Your task to perform on an android device: Search for "bose soundlink mini" on costco.com, select the first entry, and add it to the cart. Image 0: 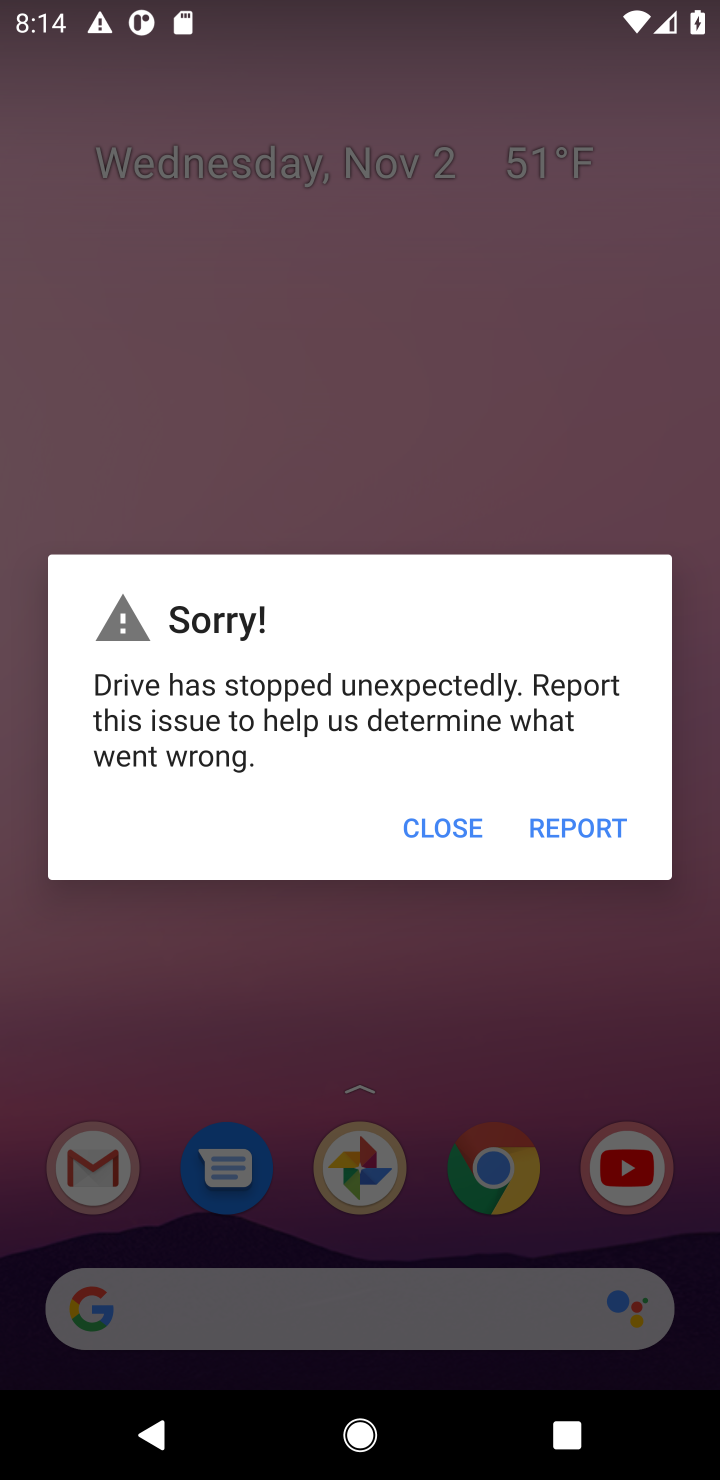
Step 0: click (419, 937)
Your task to perform on an android device: Search for "bose soundlink mini" on costco.com, select the first entry, and add it to the cart. Image 1: 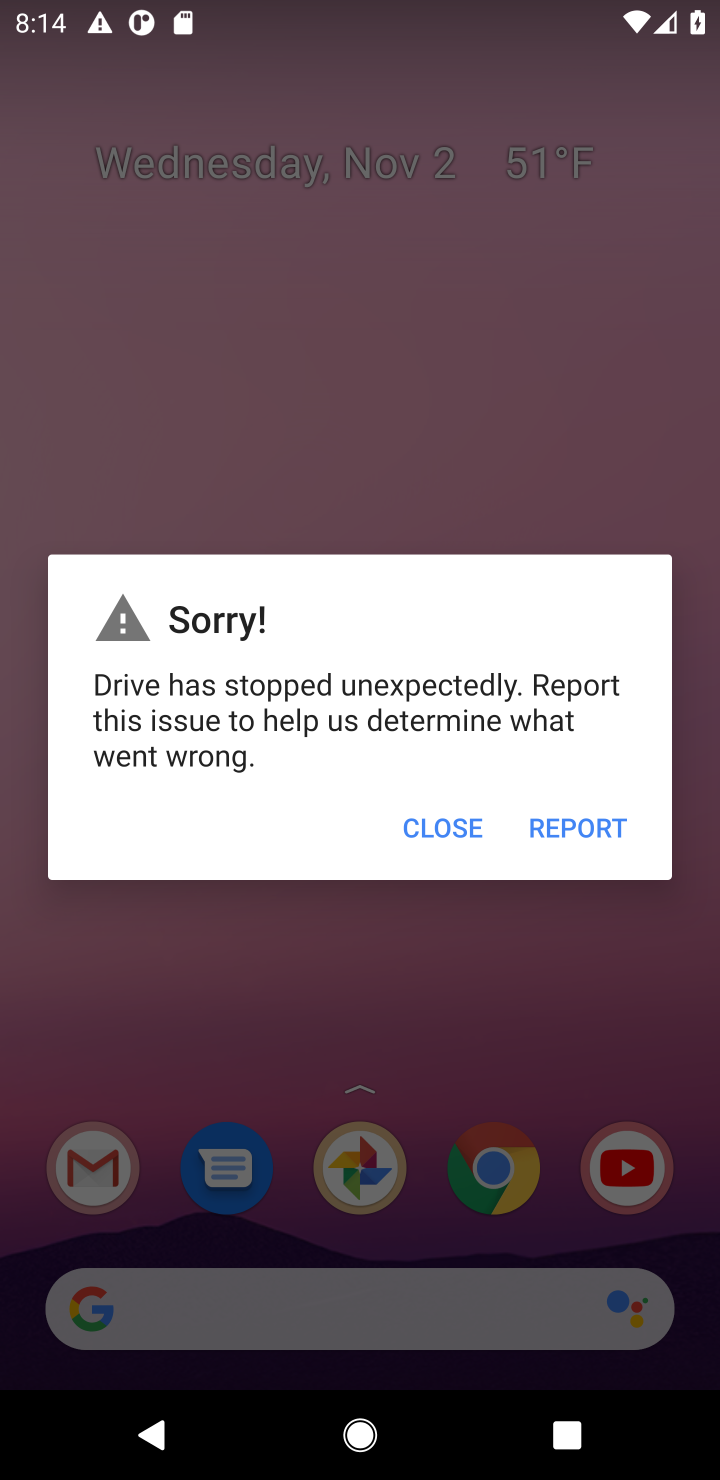
Step 1: click (462, 816)
Your task to perform on an android device: Search for "bose soundlink mini" on costco.com, select the first entry, and add it to the cart. Image 2: 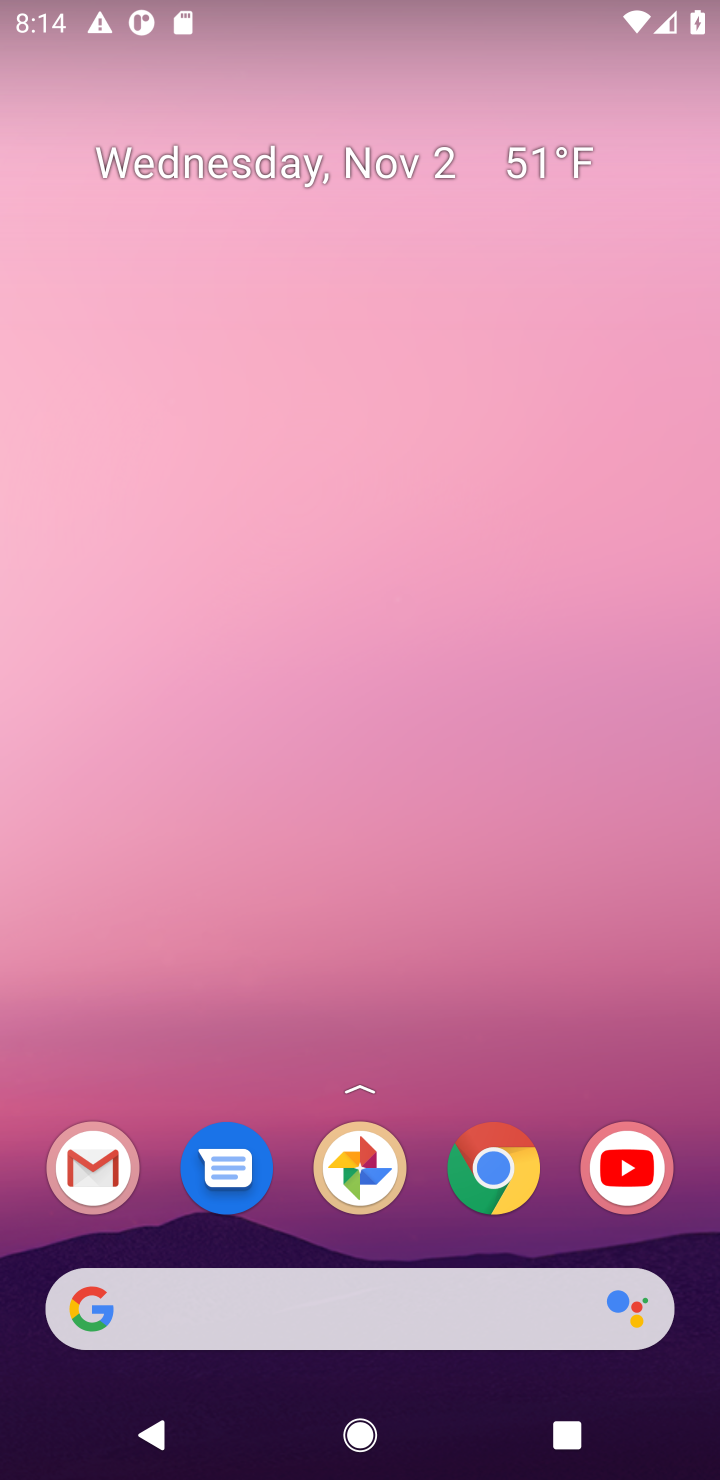
Step 2: click (306, 1300)
Your task to perform on an android device: Search for "bose soundlink mini" on costco.com, select the first entry, and add it to the cart. Image 3: 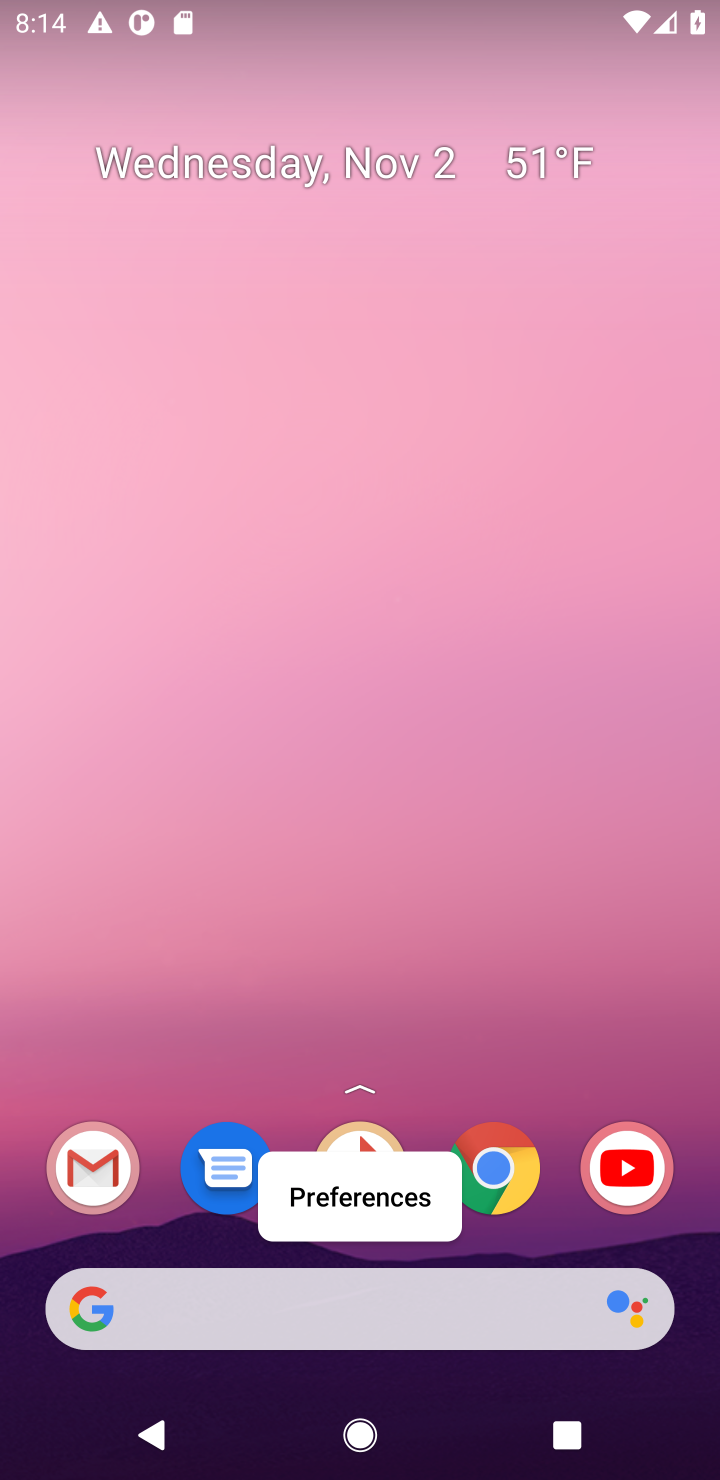
Step 3: click (515, 873)
Your task to perform on an android device: Search for "bose soundlink mini" on costco.com, select the first entry, and add it to the cart. Image 4: 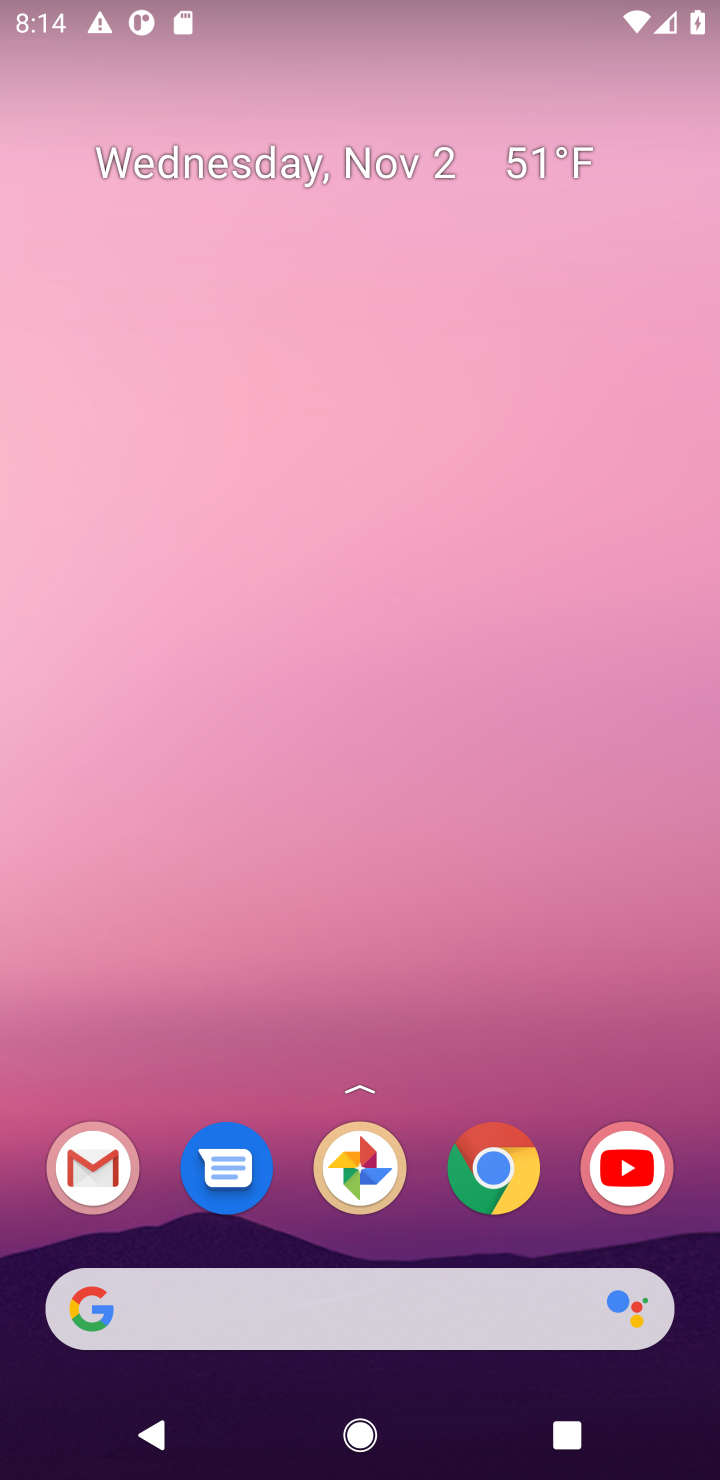
Step 4: click (509, 1160)
Your task to perform on an android device: Search for "bose soundlink mini" on costco.com, select the first entry, and add it to the cart. Image 5: 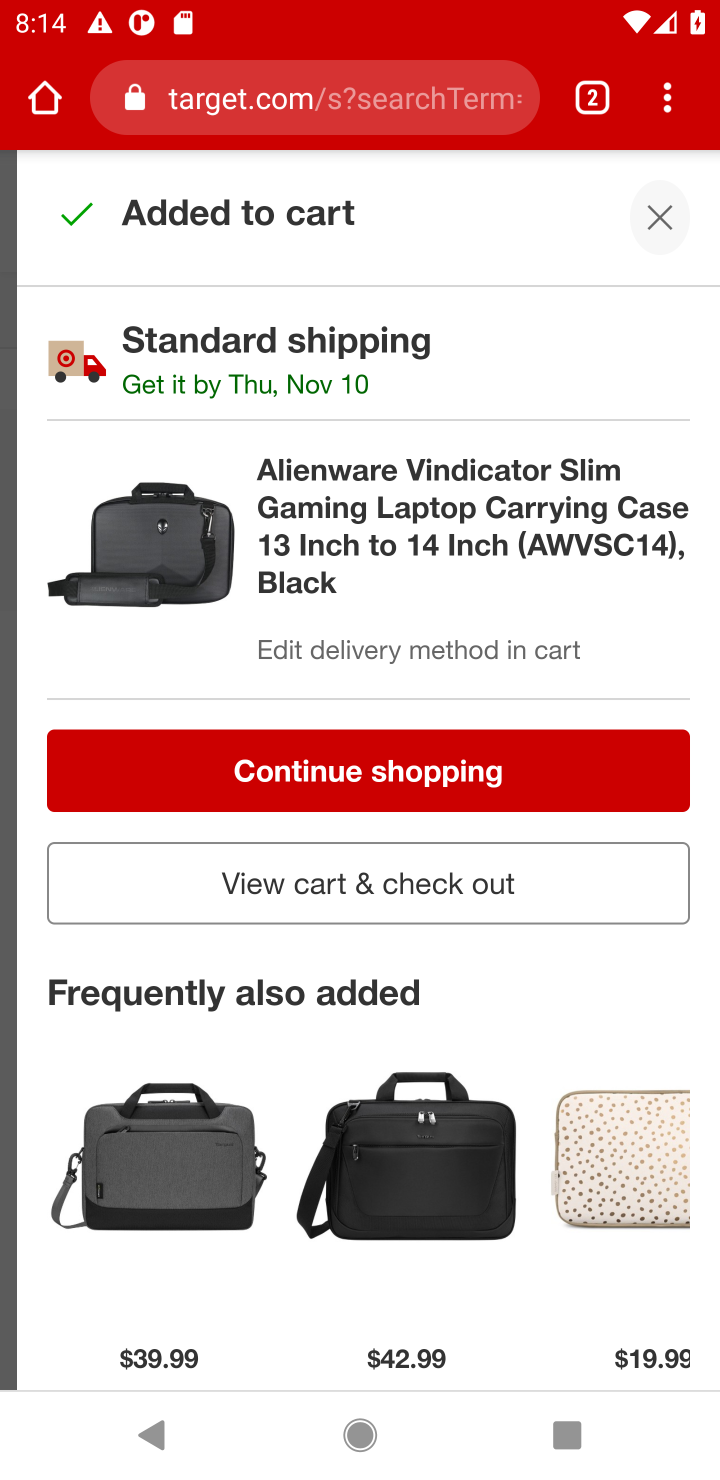
Step 5: click (338, 85)
Your task to perform on an android device: Search for "bose soundlink mini" on costco.com, select the first entry, and add it to the cart. Image 6: 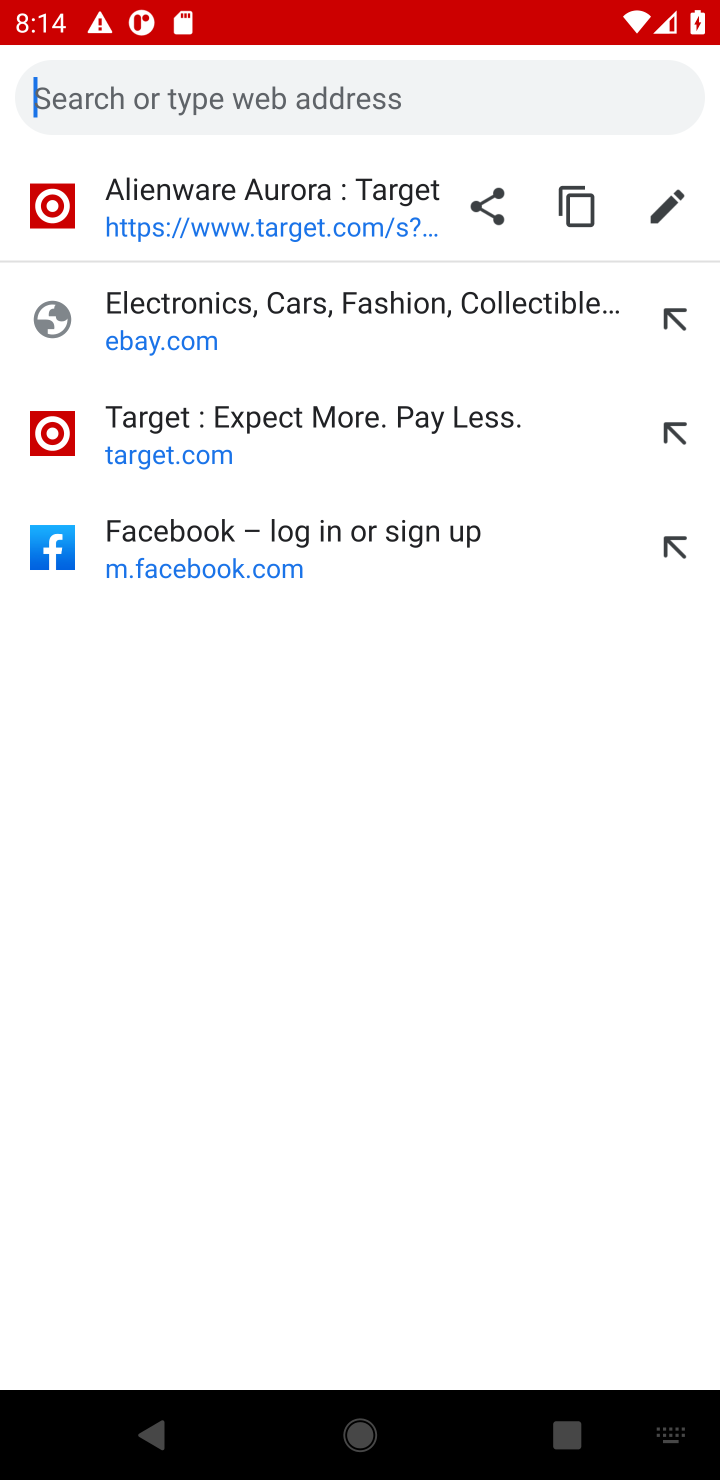
Step 6: type "costco.com"
Your task to perform on an android device: Search for "bose soundlink mini" on costco.com, select the first entry, and add it to the cart. Image 7: 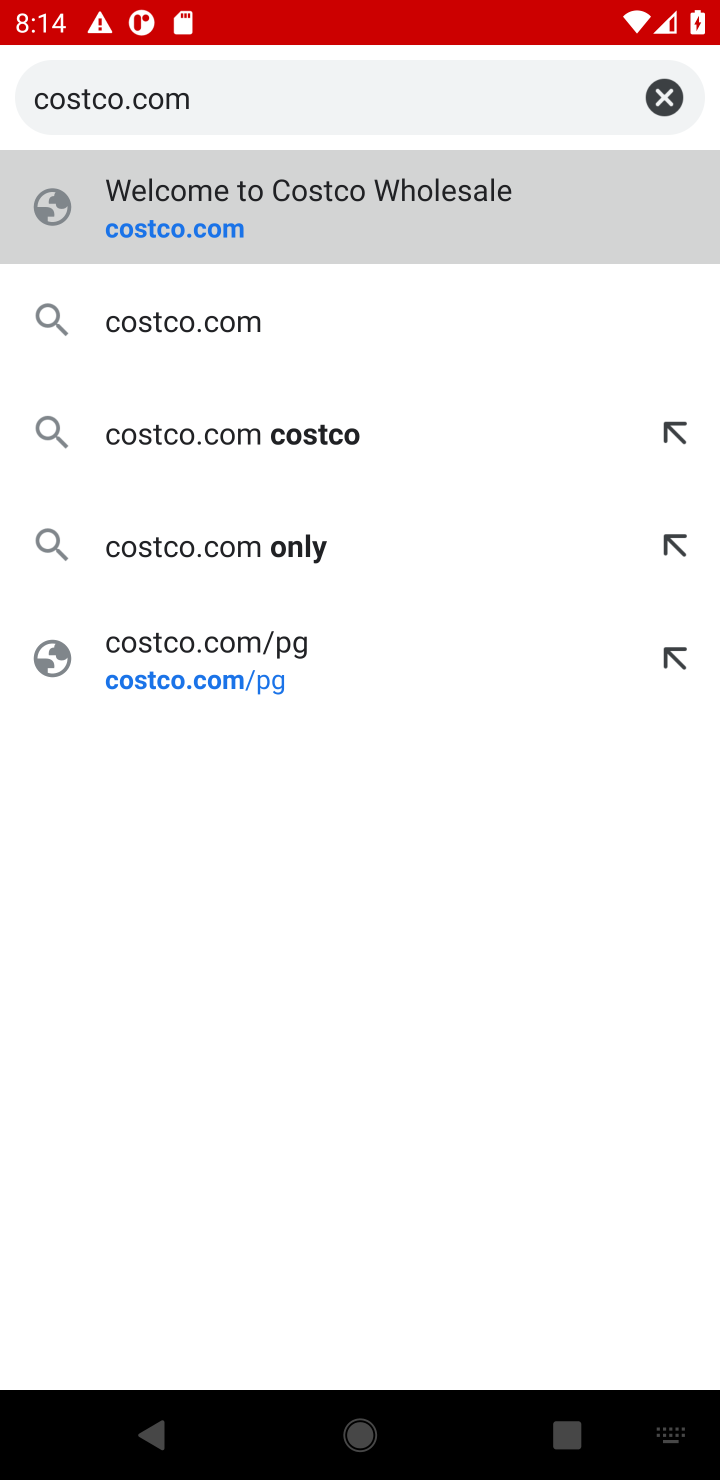
Step 7: press enter
Your task to perform on an android device: Search for "bose soundlink mini" on costco.com, select the first entry, and add it to the cart. Image 8: 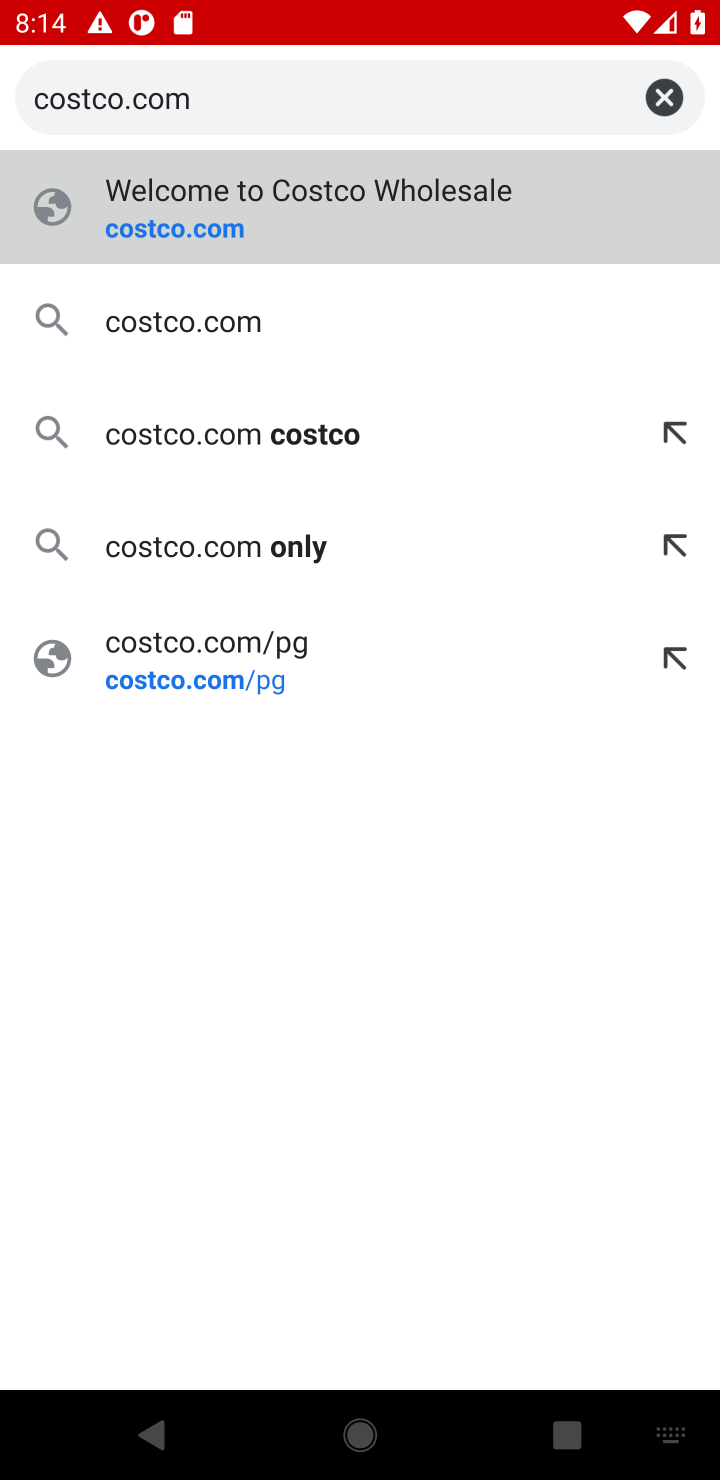
Step 8: type ""
Your task to perform on an android device: Search for "bose soundlink mini" on costco.com, select the first entry, and add it to the cart. Image 9: 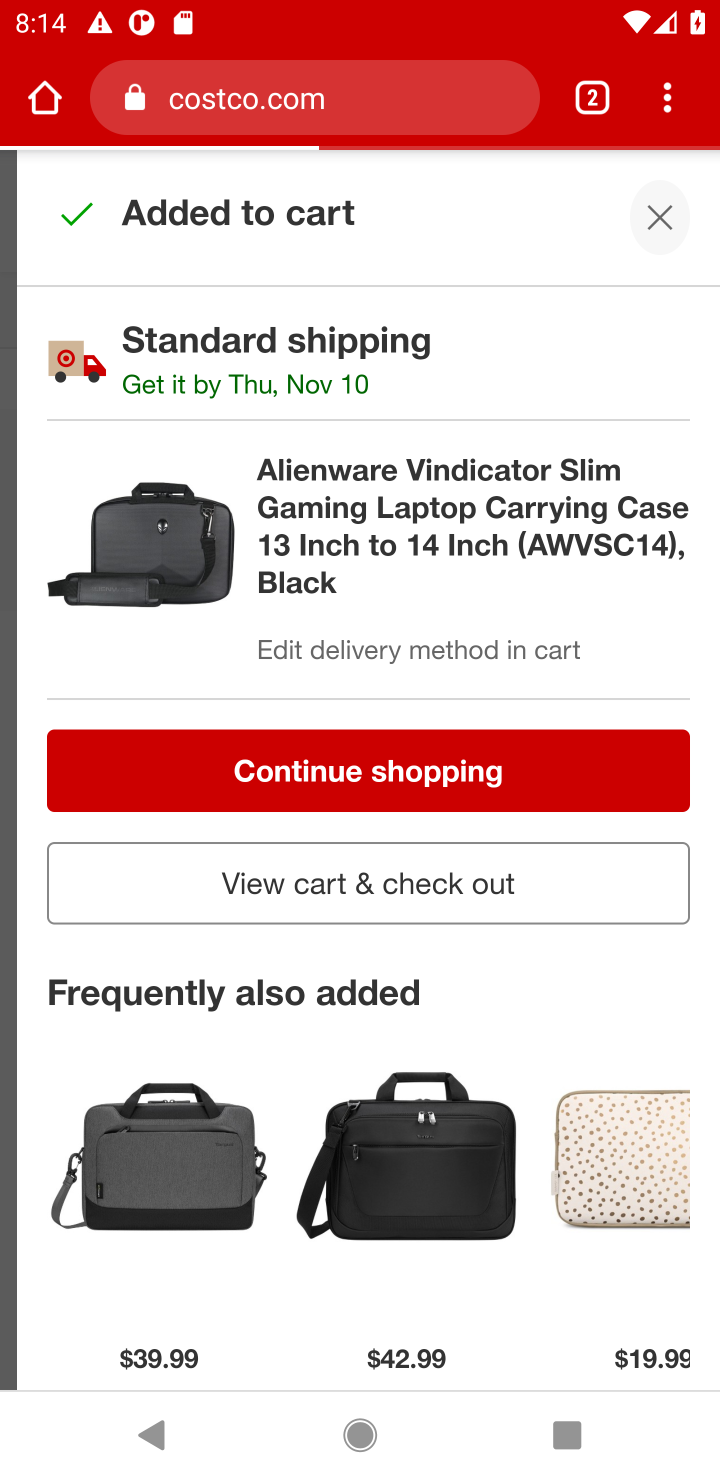
Step 9: click (264, 224)
Your task to perform on an android device: Search for "bose soundlink mini" on costco.com, select the first entry, and add it to the cart. Image 10: 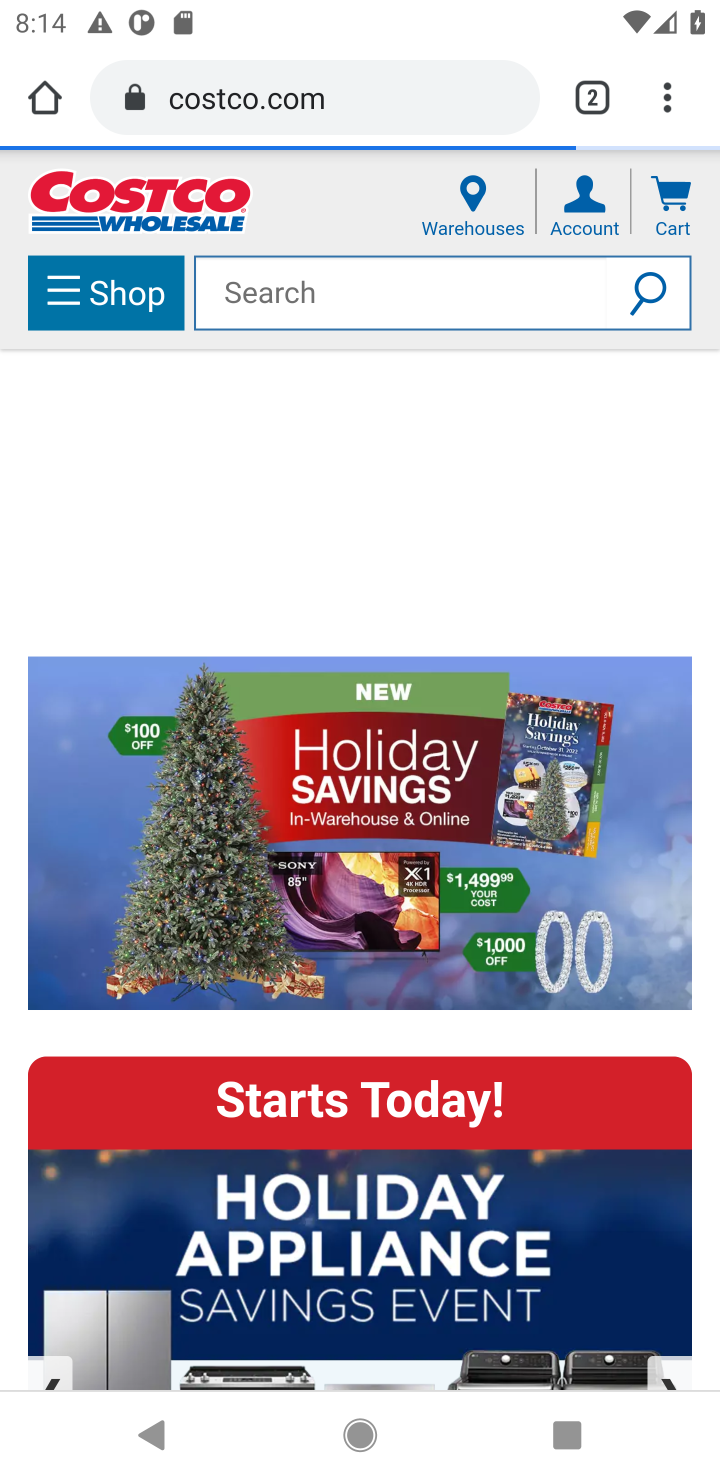
Step 10: click (319, 270)
Your task to perform on an android device: Search for "bose soundlink mini" on costco.com, select the first entry, and add it to the cart. Image 11: 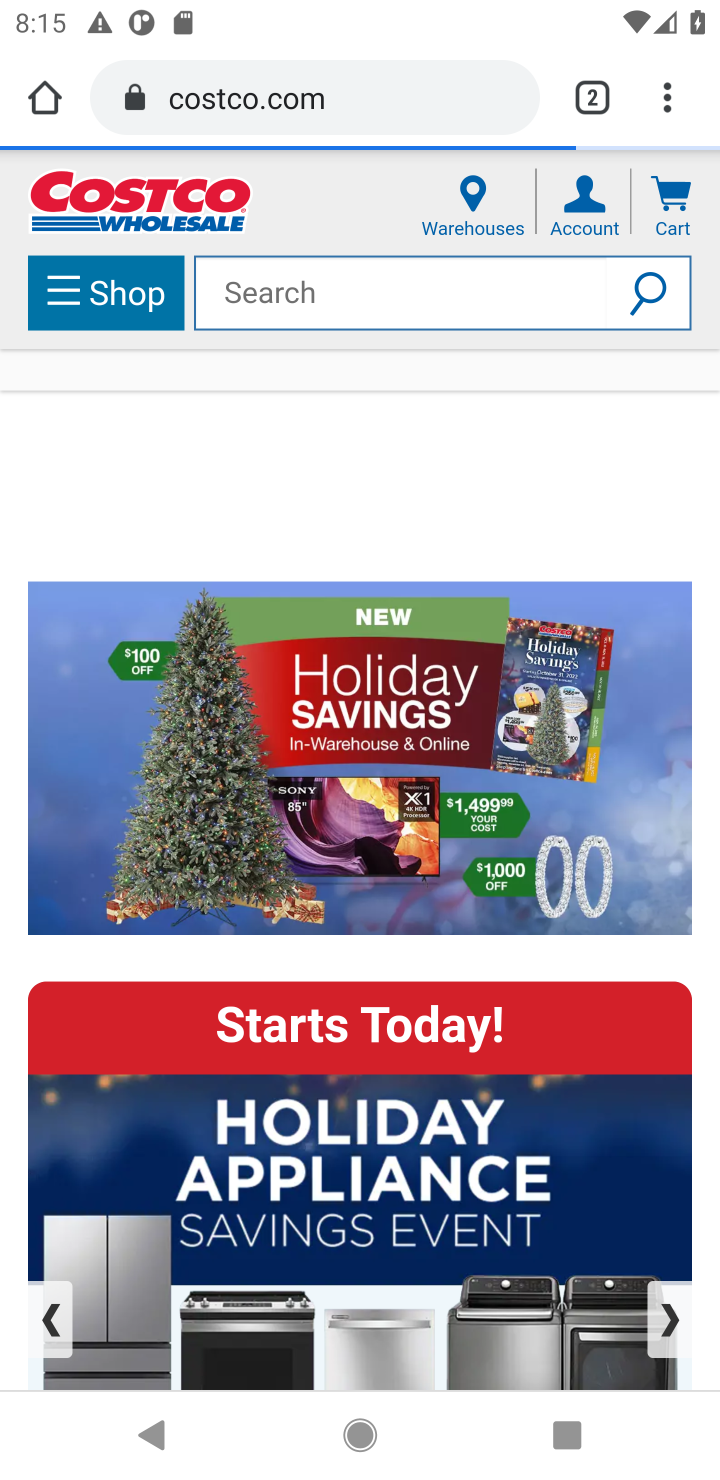
Step 11: type "bose soundlink mini"
Your task to perform on an android device: Search for "bose soundlink mini" on costco.com, select the first entry, and add it to the cart. Image 12: 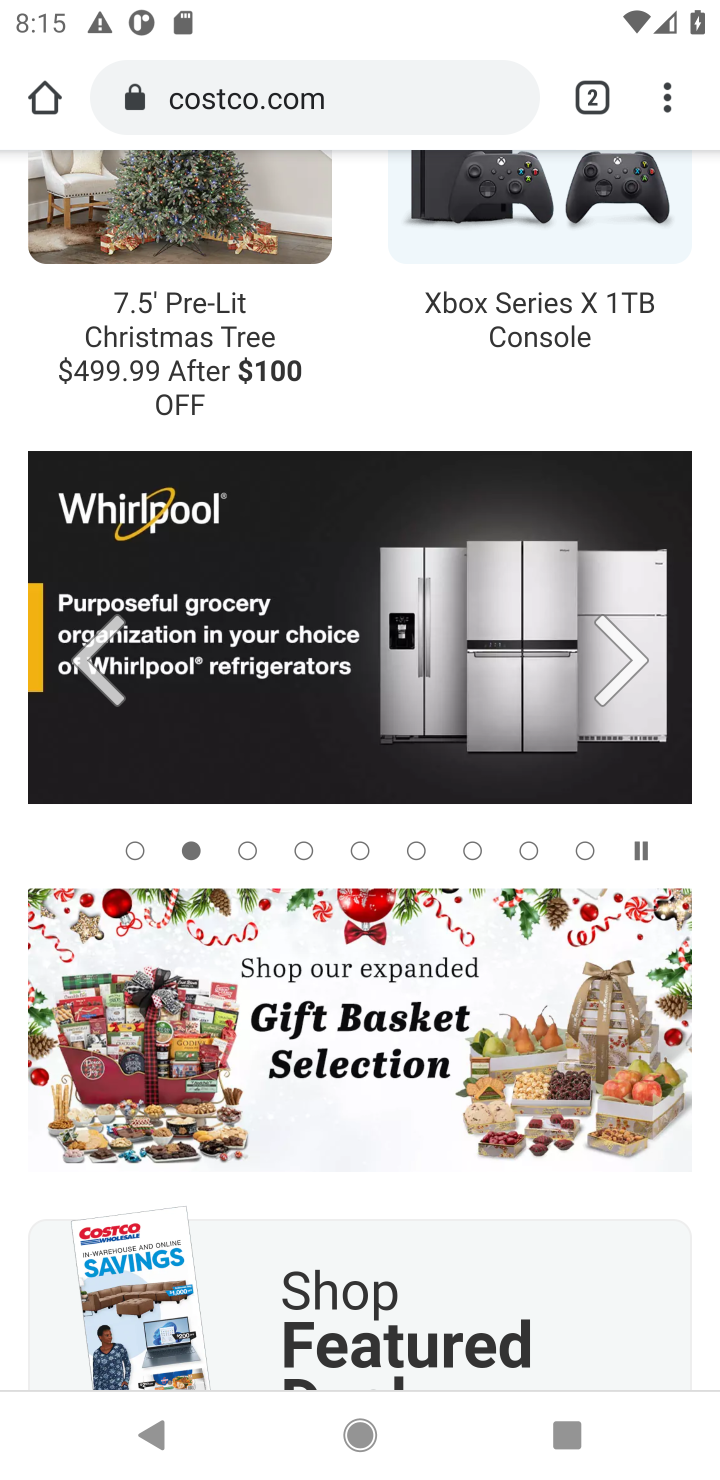
Step 12: drag from (360, 300) to (389, 1397)
Your task to perform on an android device: Search for "bose soundlink mini" on costco.com, select the first entry, and add it to the cart. Image 13: 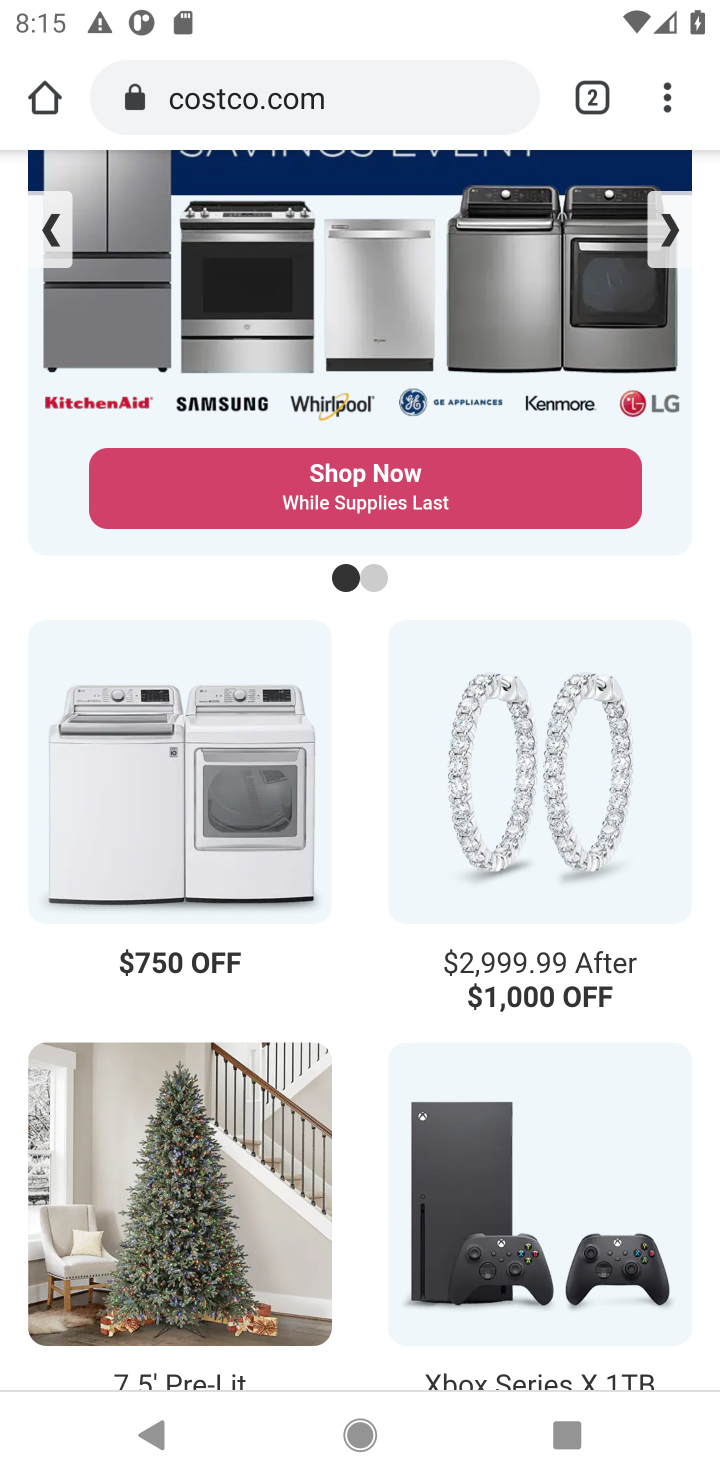
Step 13: drag from (248, 581) to (367, 1298)
Your task to perform on an android device: Search for "bose soundlink mini" on costco.com, select the first entry, and add it to the cart. Image 14: 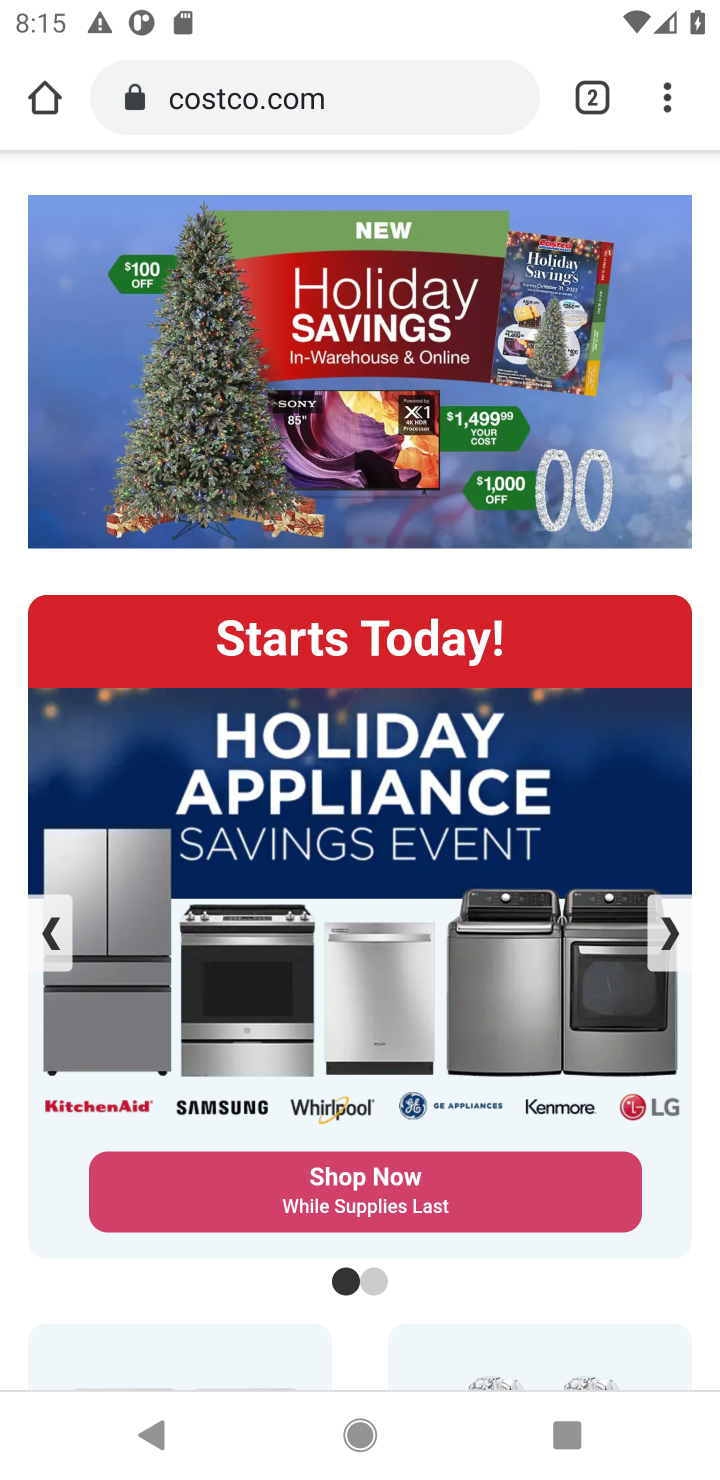
Step 14: drag from (297, 168) to (411, 1275)
Your task to perform on an android device: Search for "bose soundlink mini" on costco.com, select the first entry, and add it to the cart. Image 15: 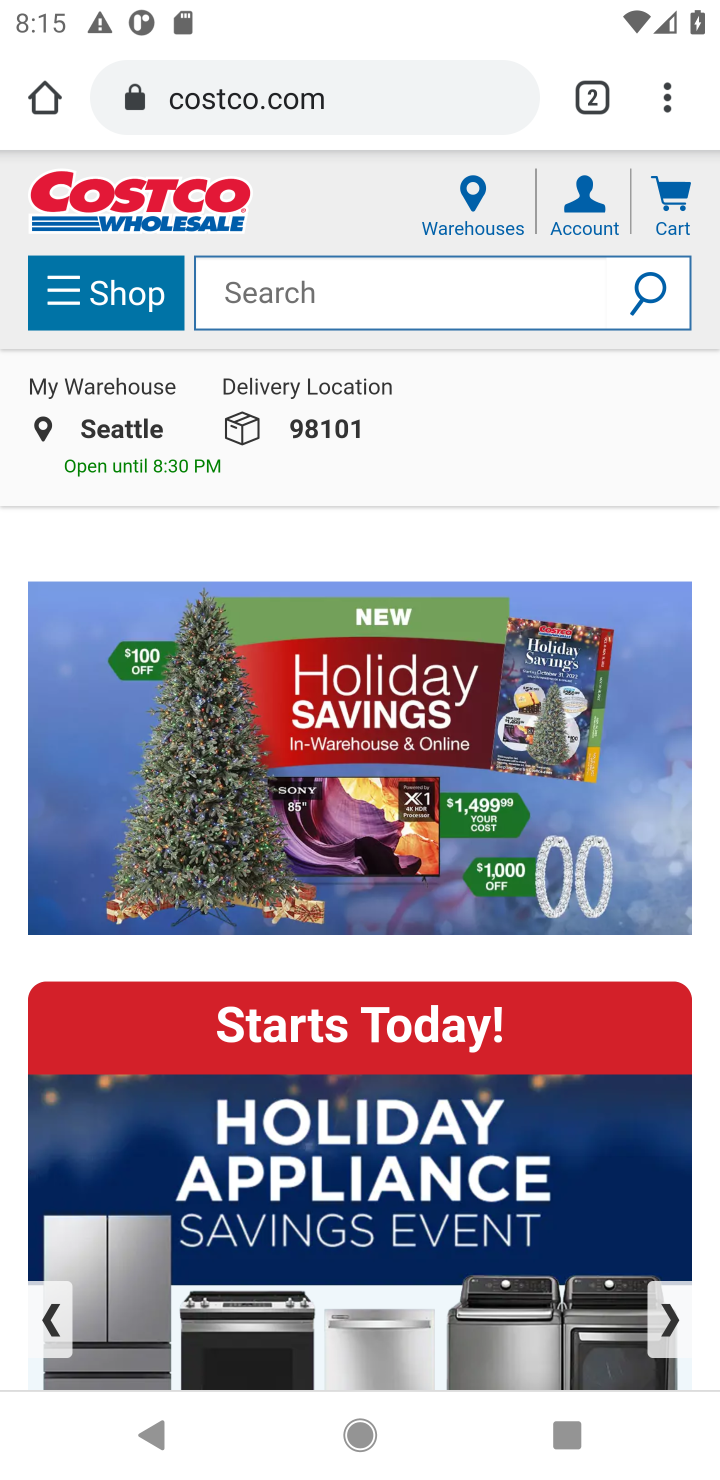
Step 15: click (280, 286)
Your task to perform on an android device: Search for "bose soundlink mini" on costco.com, select the first entry, and add it to the cart. Image 16: 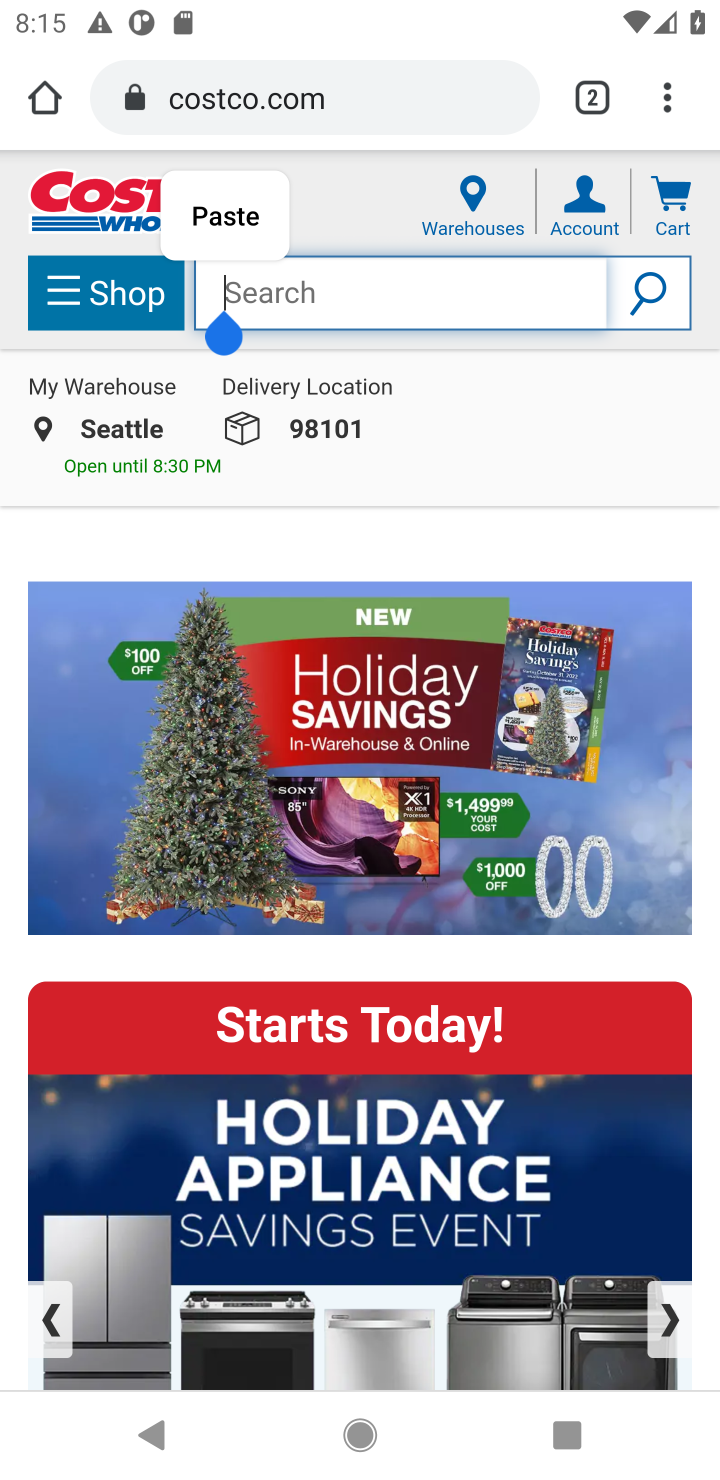
Step 16: type "bose soundlink mini"
Your task to perform on an android device: Search for "bose soundlink mini" on costco.com, select the first entry, and add it to the cart. Image 17: 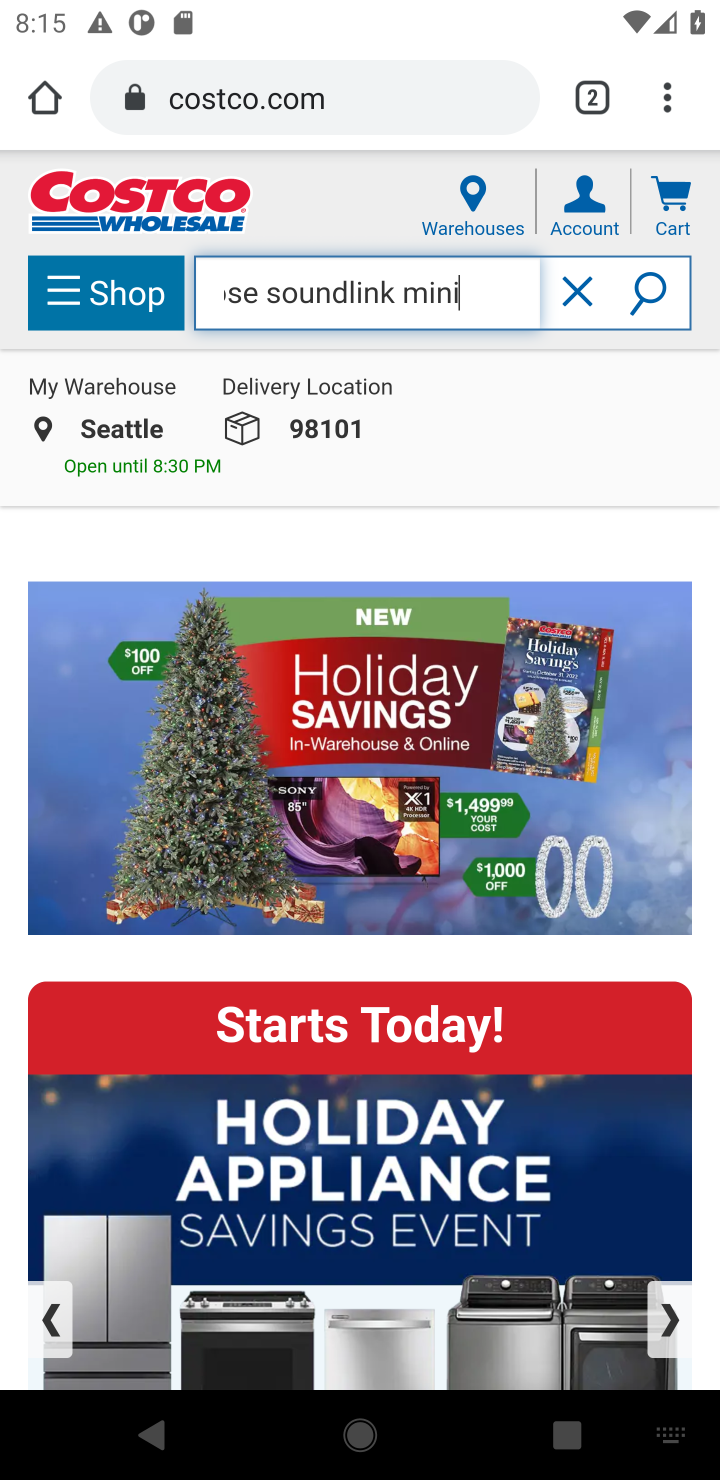
Step 17: type ""
Your task to perform on an android device: Search for "bose soundlink mini" on costco.com, select the first entry, and add it to the cart. Image 18: 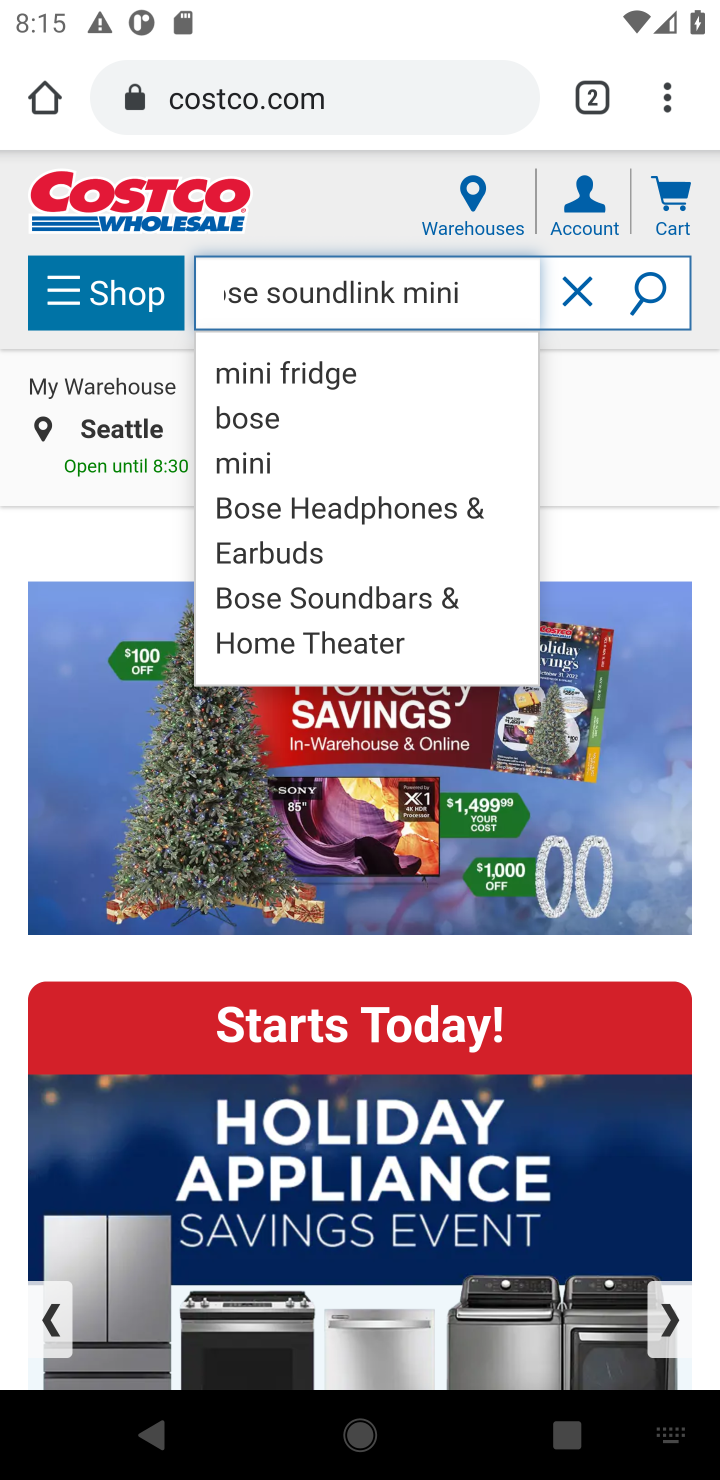
Step 18: press enter
Your task to perform on an android device: Search for "bose soundlink mini" on costco.com, select the first entry, and add it to the cart. Image 19: 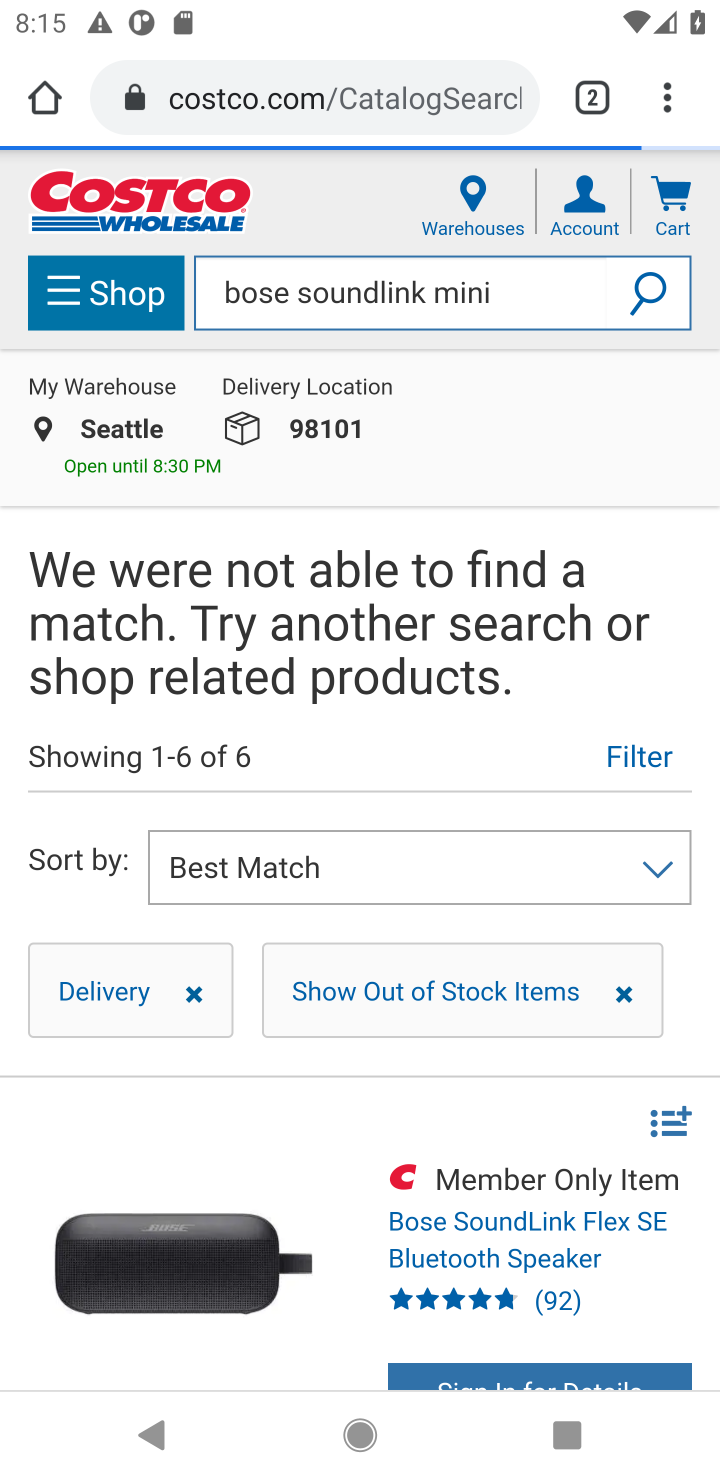
Step 19: drag from (562, 1311) to (489, 921)
Your task to perform on an android device: Search for "bose soundlink mini" on costco.com, select the first entry, and add it to the cart. Image 20: 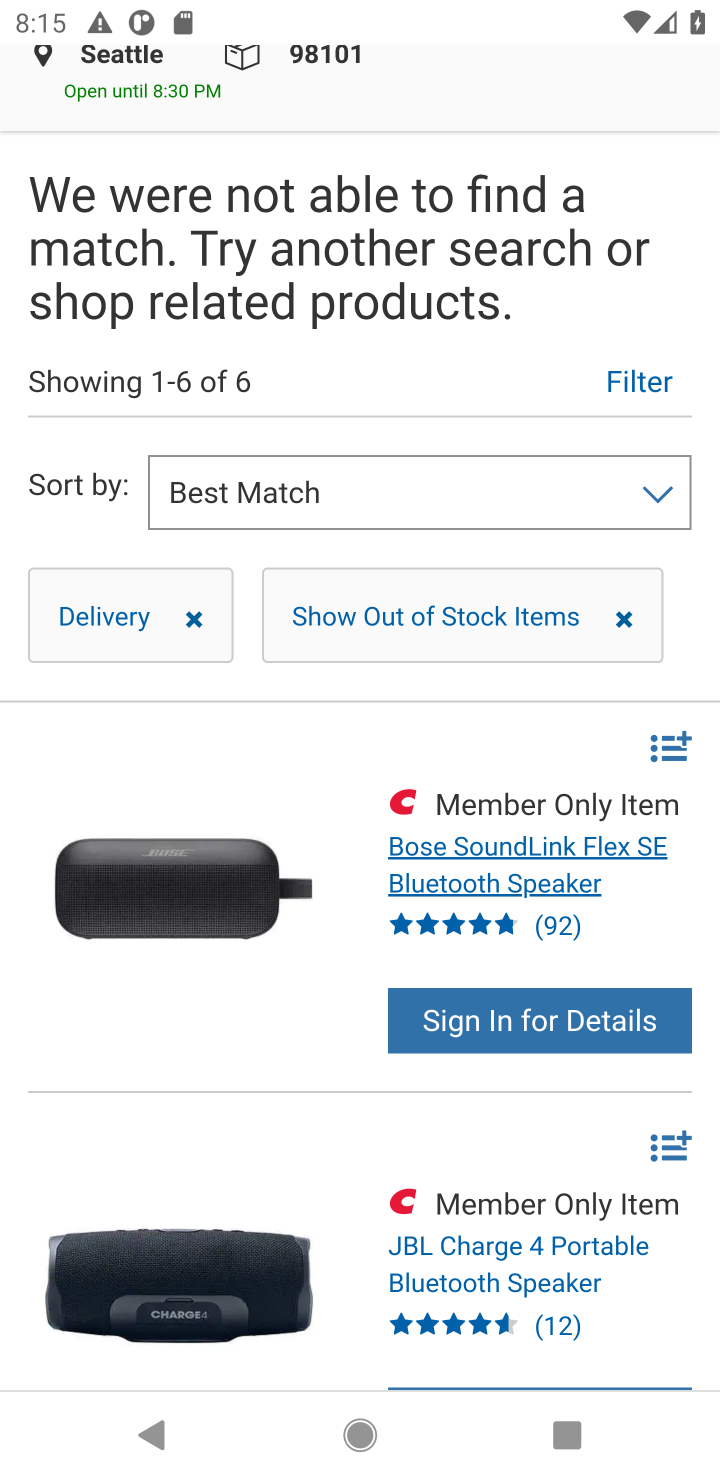
Step 20: click (499, 1013)
Your task to perform on an android device: Search for "bose soundlink mini" on costco.com, select the first entry, and add it to the cart. Image 21: 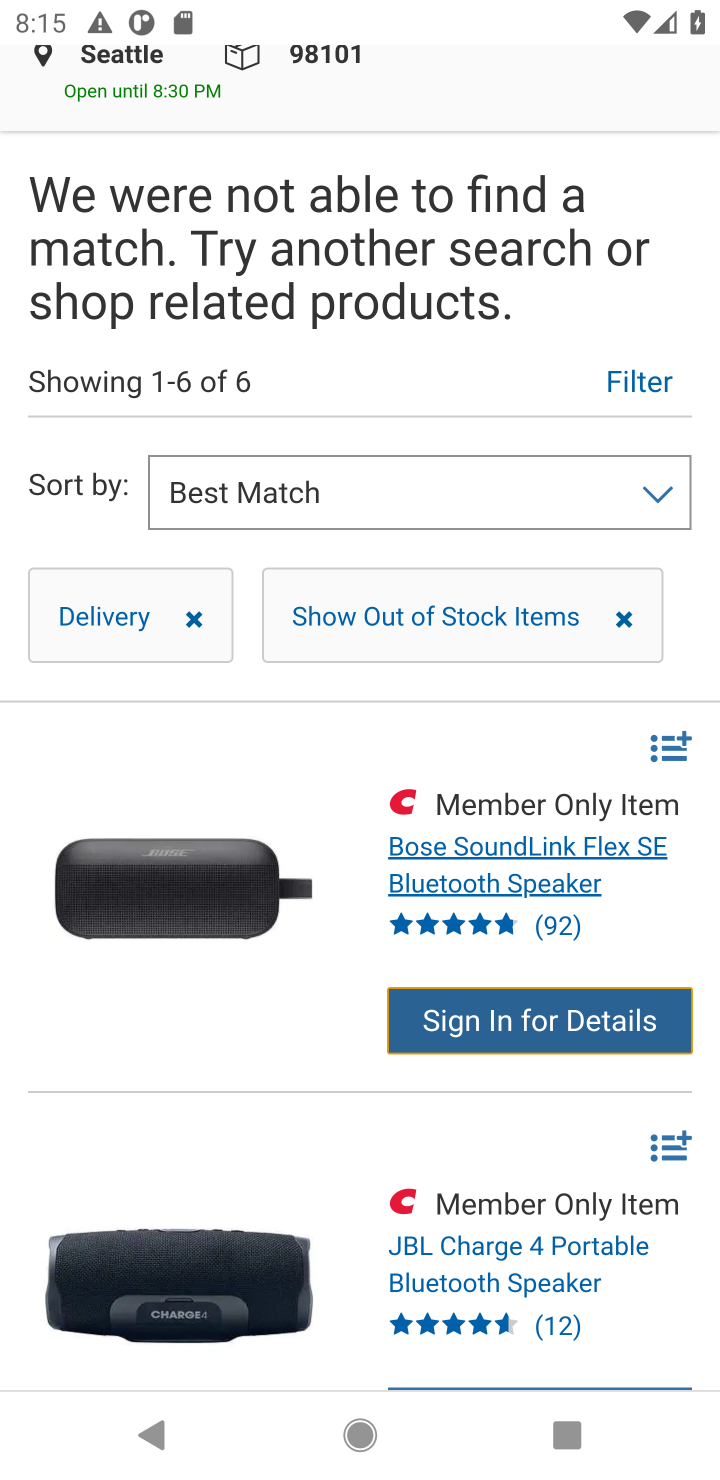
Step 21: click (499, 1013)
Your task to perform on an android device: Search for "bose soundlink mini" on costco.com, select the first entry, and add it to the cart. Image 22: 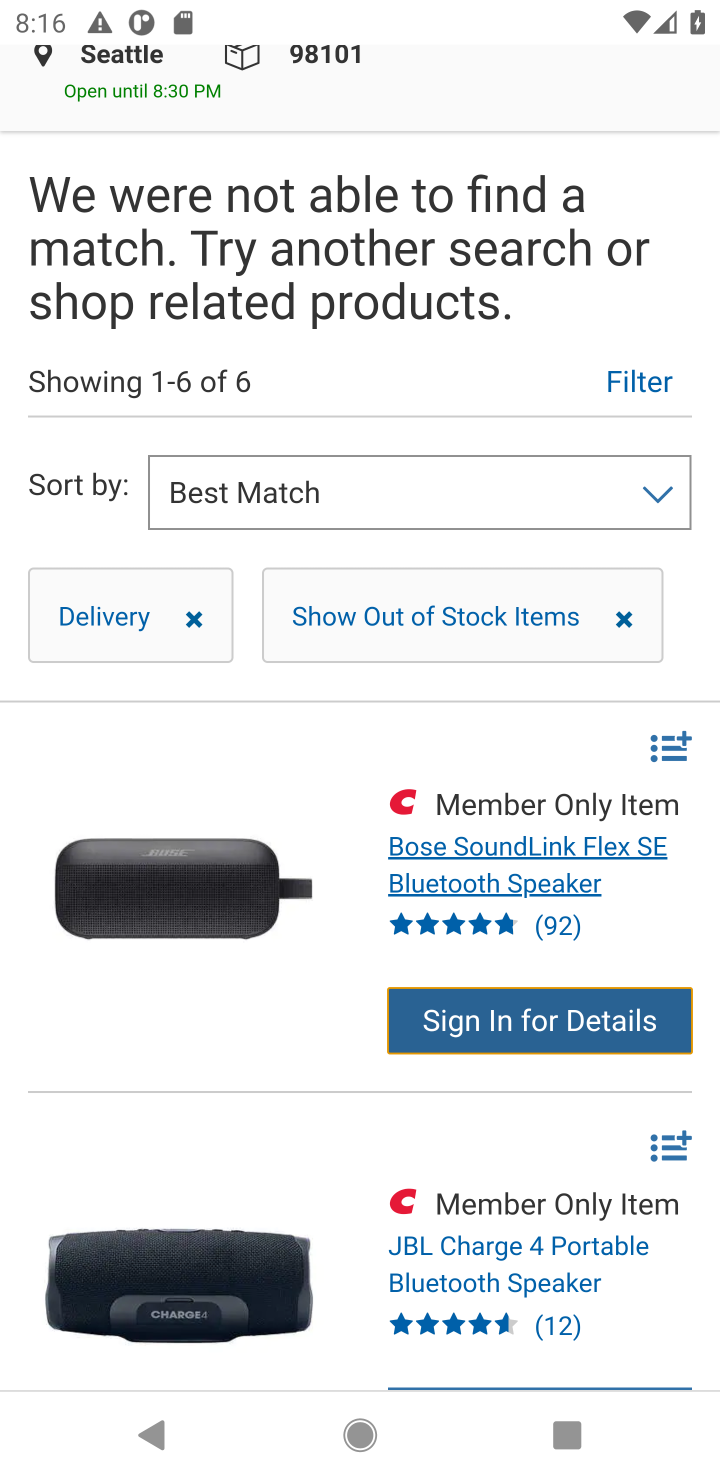
Step 22: click (529, 1033)
Your task to perform on an android device: Search for "bose soundlink mini" on costco.com, select the first entry, and add it to the cart. Image 23: 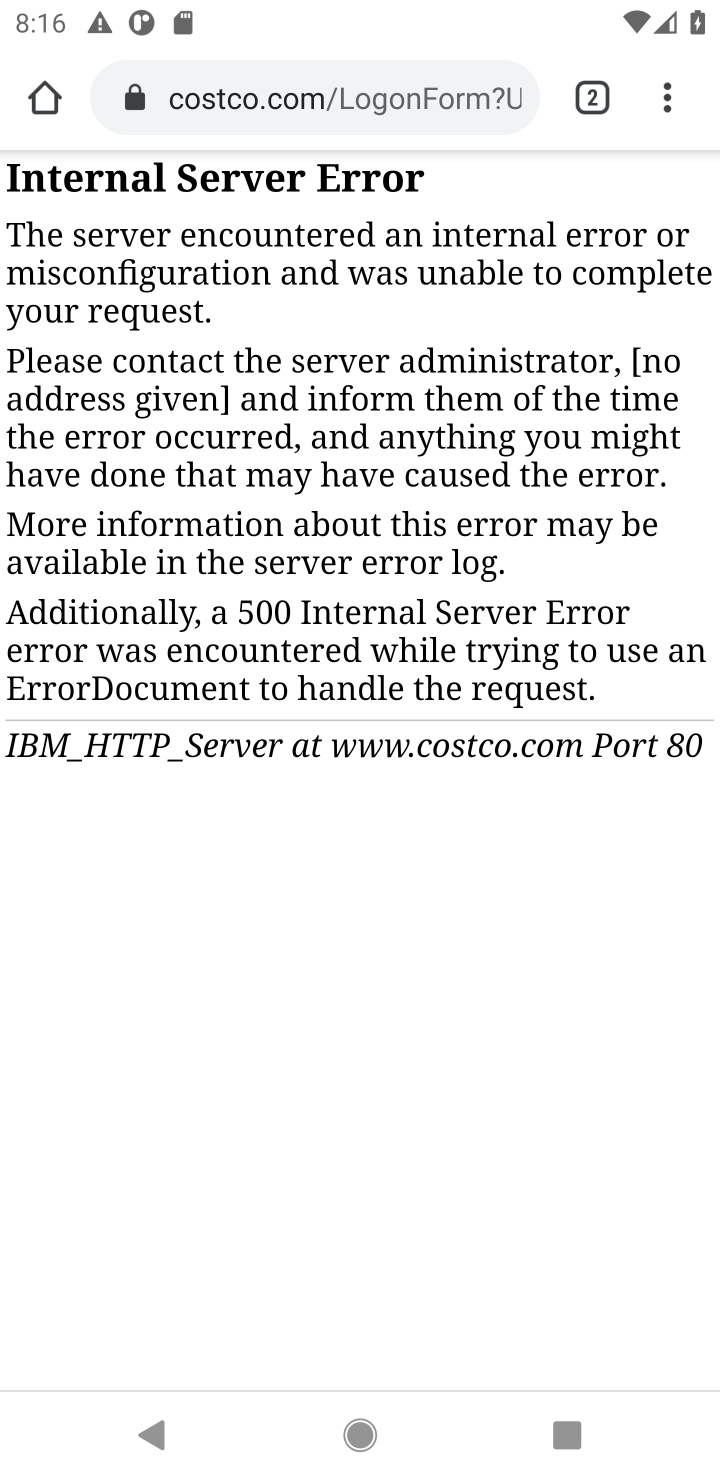
Step 23: task complete